Your task to perform on an android device: Search for the new Jordans on Nike.com Image 0: 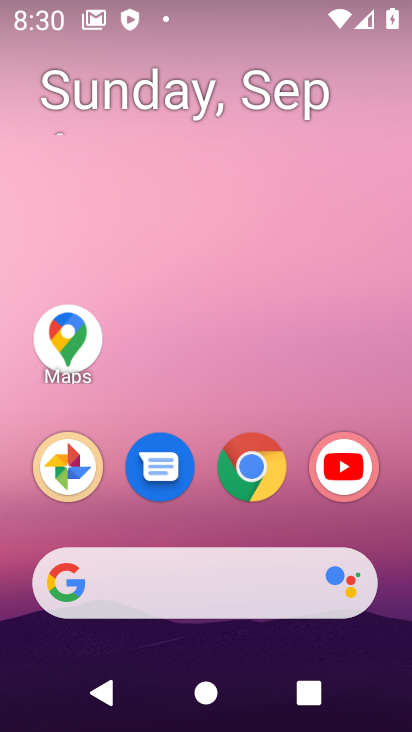
Step 0: click (301, 452)
Your task to perform on an android device: Search for the new Jordans on Nike.com Image 1: 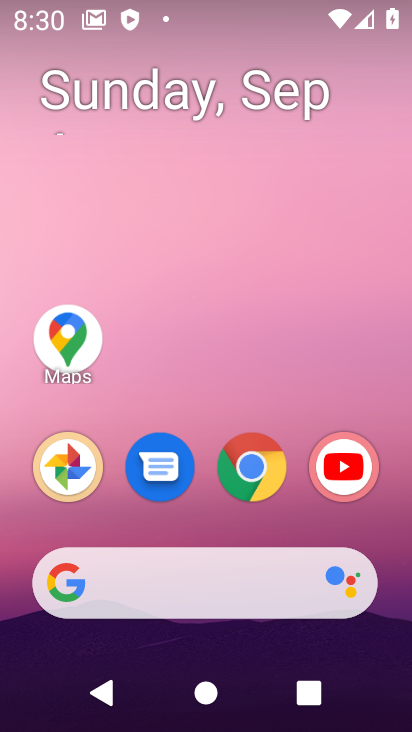
Step 1: click (246, 451)
Your task to perform on an android device: Search for the new Jordans on Nike.com Image 2: 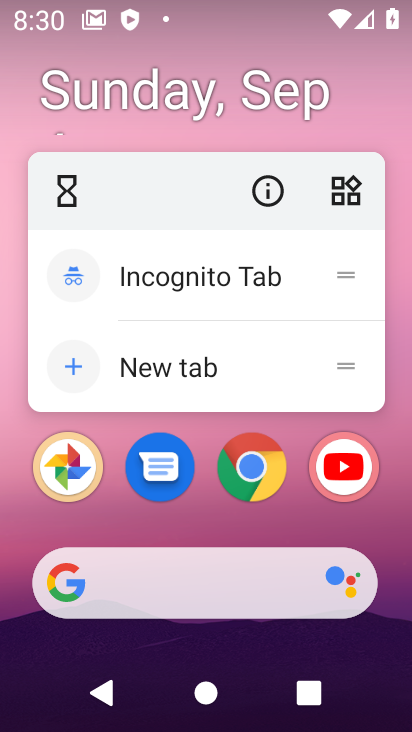
Step 2: click (258, 477)
Your task to perform on an android device: Search for the new Jordans on Nike.com Image 3: 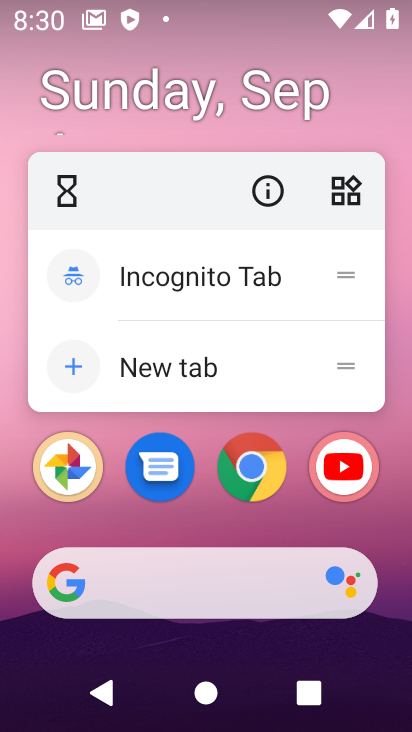
Step 3: click (262, 457)
Your task to perform on an android device: Search for the new Jordans on Nike.com Image 4: 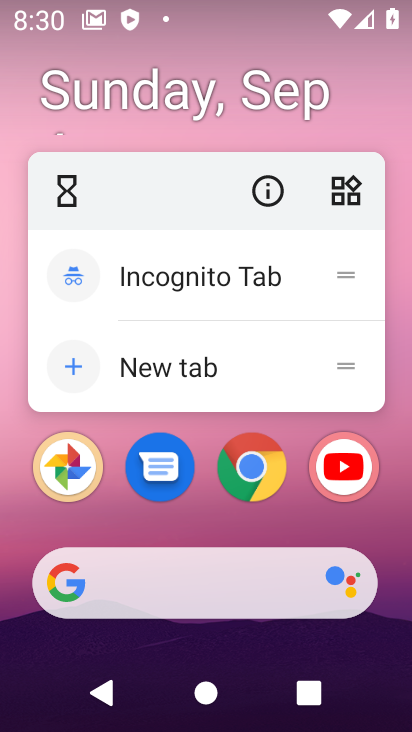
Step 4: click (259, 457)
Your task to perform on an android device: Search for the new Jordans on Nike.com Image 5: 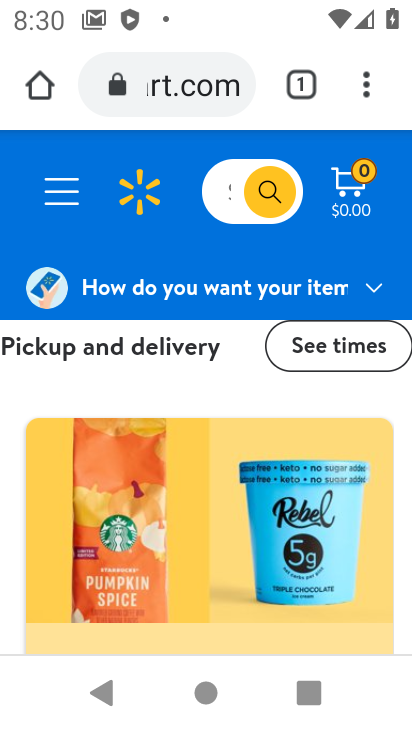
Step 5: click (227, 79)
Your task to perform on an android device: Search for the new Jordans on Nike.com Image 6: 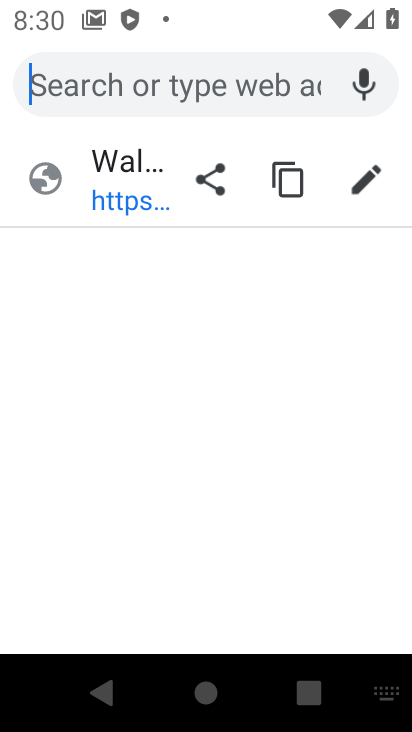
Step 6: type "nike.com"
Your task to perform on an android device: Search for the new Jordans on Nike.com Image 7: 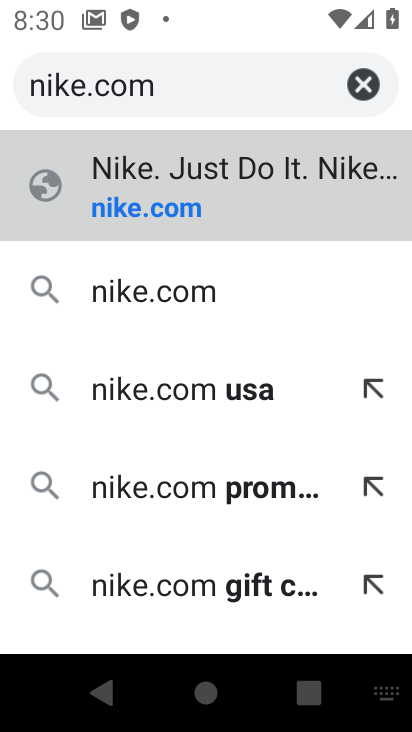
Step 7: click (134, 191)
Your task to perform on an android device: Search for the new Jordans on Nike.com Image 8: 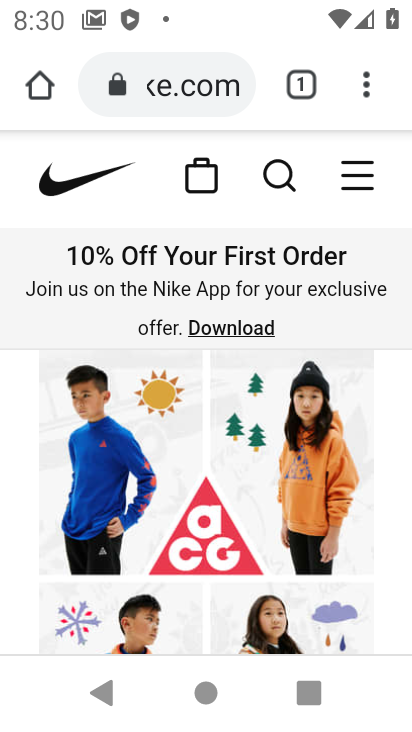
Step 8: click (278, 177)
Your task to perform on an android device: Search for the new Jordans on Nike.com Image 9: 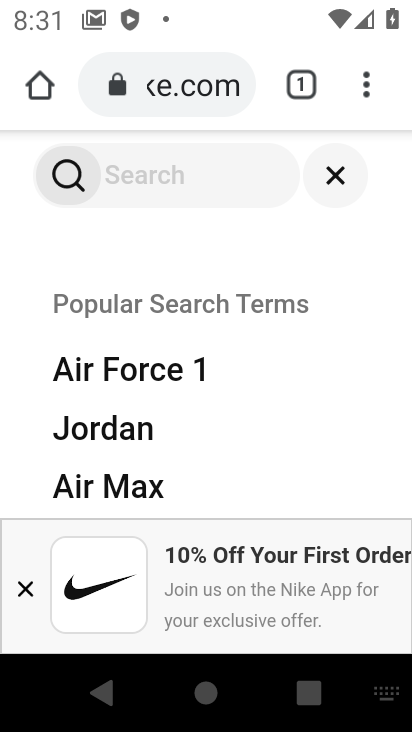
Step 9: type "new jordans "
Your task to perform on an android device: Search for the new Jordans on Nike.com Image 10: 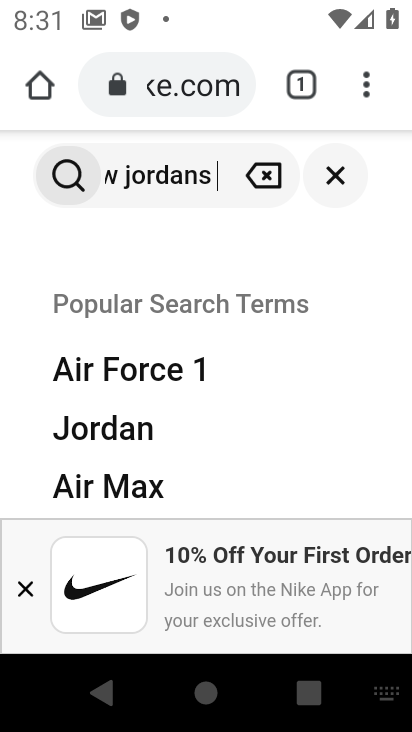
Step 10: type ""
Your task to perform on an android device: Search for the new Jordans on Nike.com Image 11: 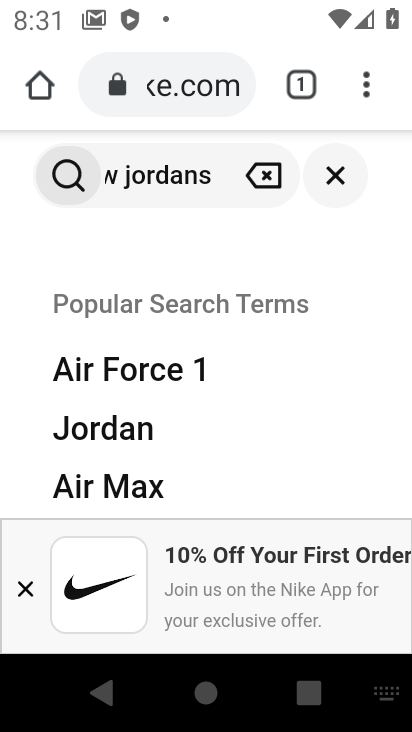
Step 11: click (128, 423)
Your task to perform on an android device: Search for the new Jordans on Nike.com Image 12: 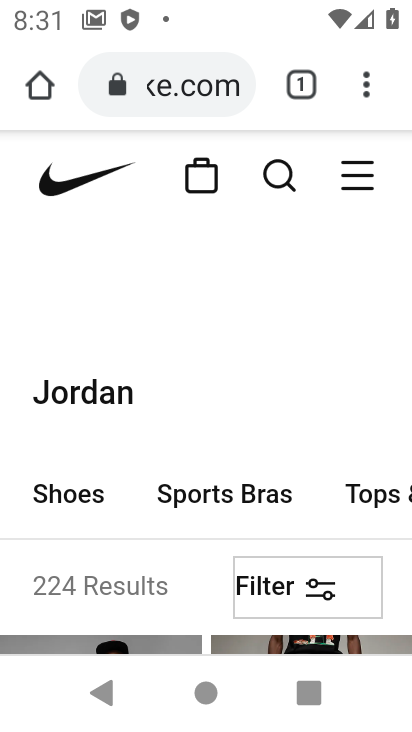
Step 12: drag from (358, 343) to (372, 297)
Your task to perform on an android device: Search for the new Jordans on Nike.com Image 13: 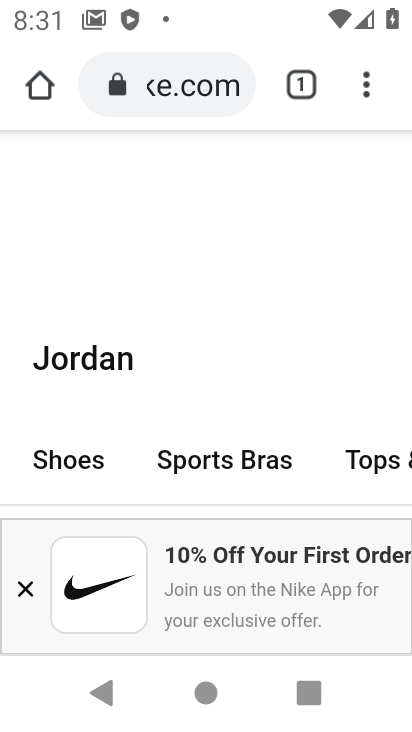
Step 13: click (26, 584)
Your task to perform on an android device: Search for the new Jordans on Nike.com Image 14: 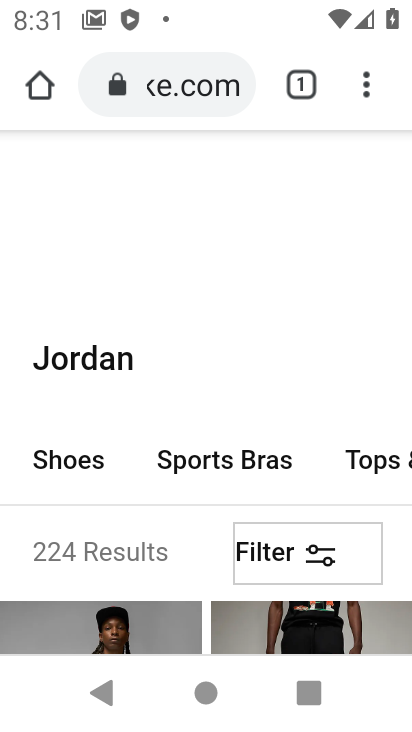
Step 14: drag from (389, 546) to (386, 143)
Your task to perform on an android device: Search for the new Jordans on Nike.com Image 15: 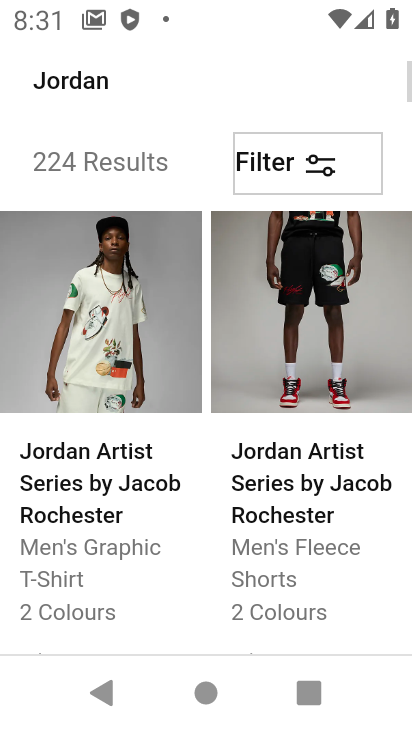
Step 15: drag from (374, 497) to (383, 203)
Your task to perform on an android device: Search for the new Jordans on Nike.com Image 16: 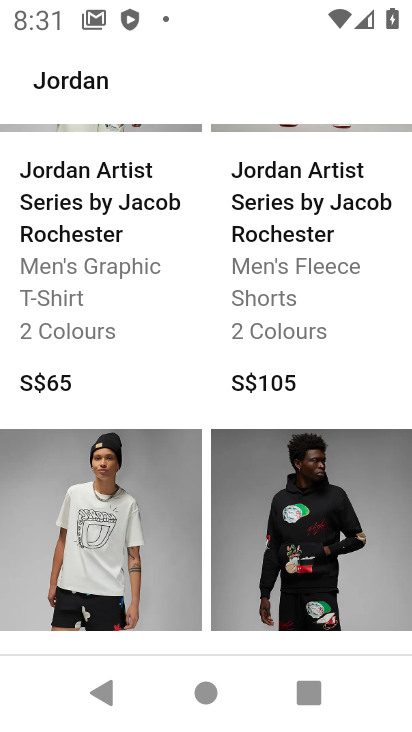
Step 16: drag from (355, 548) to (322, 302)
Your task to perform on an android device: Search for the new Jordans on Nike.com Image 17: 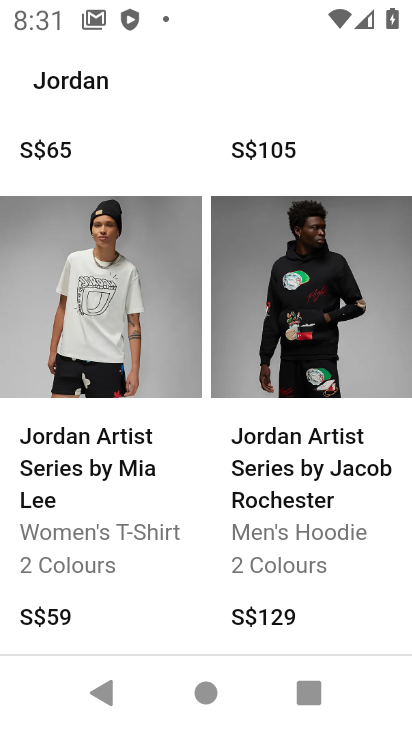
Step 17: drag from (276, 584) to (254, 385)
Your task to perform on an android device: Search for the new Jordans on Nike.com Image 18: 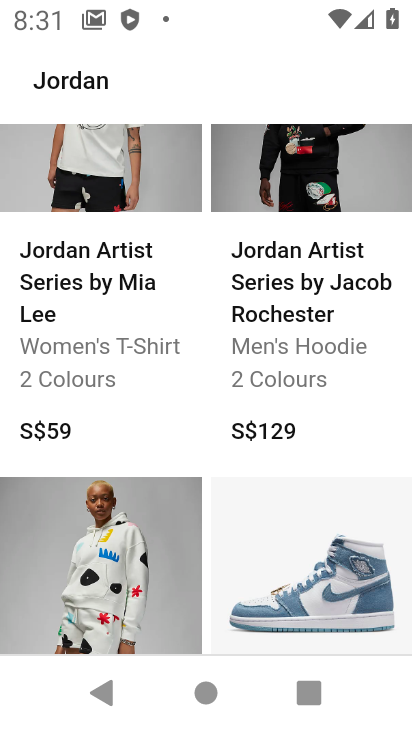
Step 18: drag from (396, 427) to (389, 226)
Your task to perform on an android device: Search for the new Jordans on Nike.com Image 19: 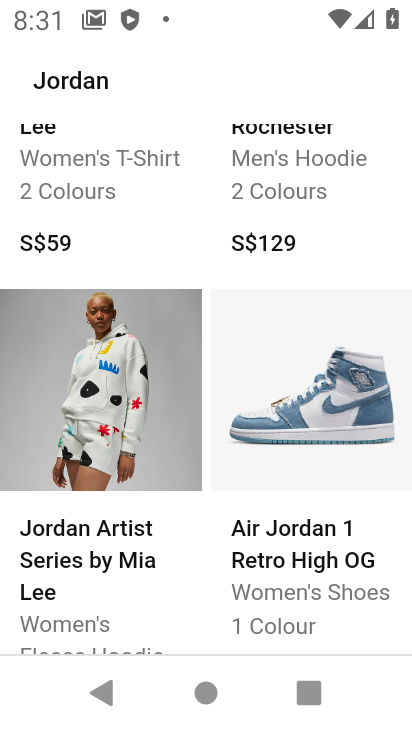
Step 19: drag from (357, 298) to (341, 102)
Your task to perform on an android device: Search for the new Jordans on Nike.com Image 20: 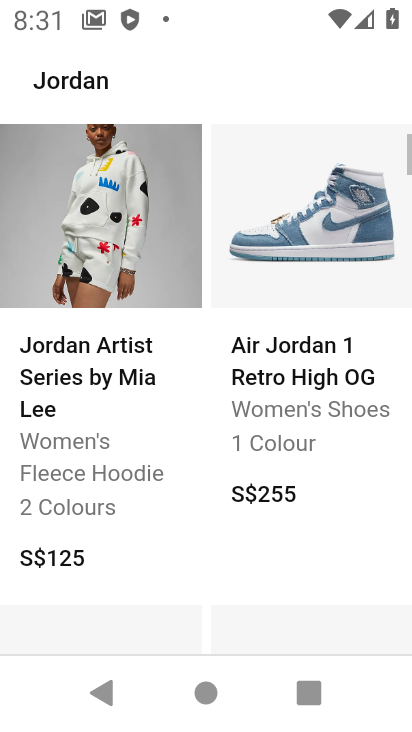
Step 20: click (356, 213)
Your task to perform on an android device: Search for the new Jordans on Nike.com Image 21: 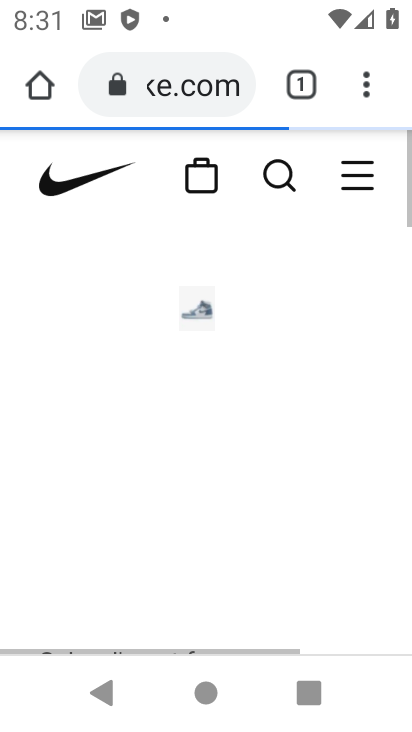
Step 21: drag from (386, 558) to (395, 198)
Your task to perform on an android device: Search for the new Jordans on Nike.com Image 22: 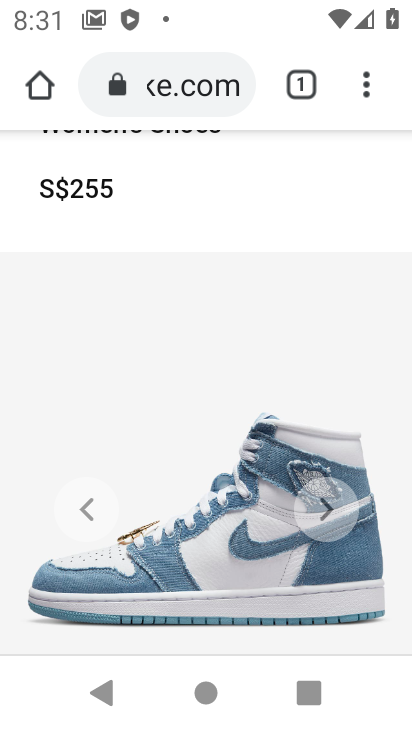
Step 22: drag from (375, 384) to (389, 170)
Your task to perform on an android device: Search for the new Jordans on Nike.com Image 23: 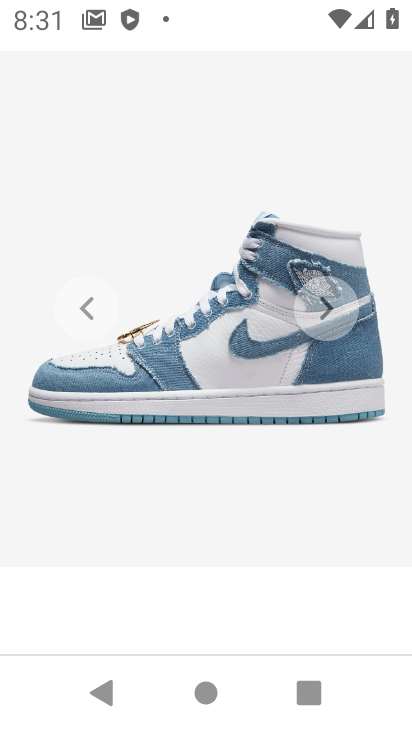
Step 23: drag from (395, 557) to (372, 262)
Your task to perform on an android device: Search for the new Jordans on Nike.com Image 24: 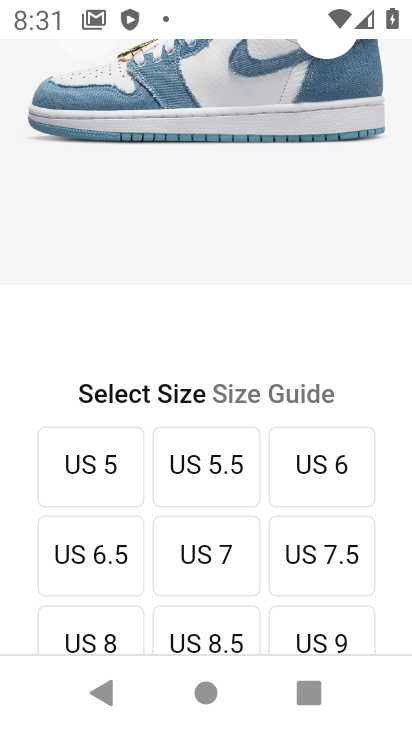
Step 24: drag from (384, 519) to (375, 184)
Your task to perform on an android device: Search for the new Jordans on Nike.com Image 25: 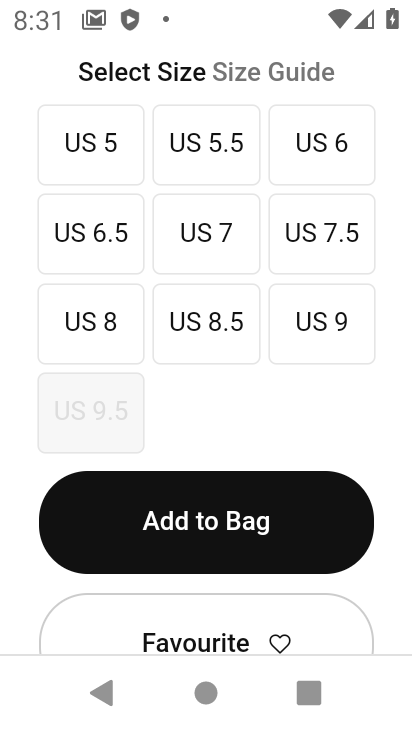
Step 25: drag from (384, 555) to (405, 69)
Your task to perform on an android device: Search for the new Jordans on Nike.com Image 26: 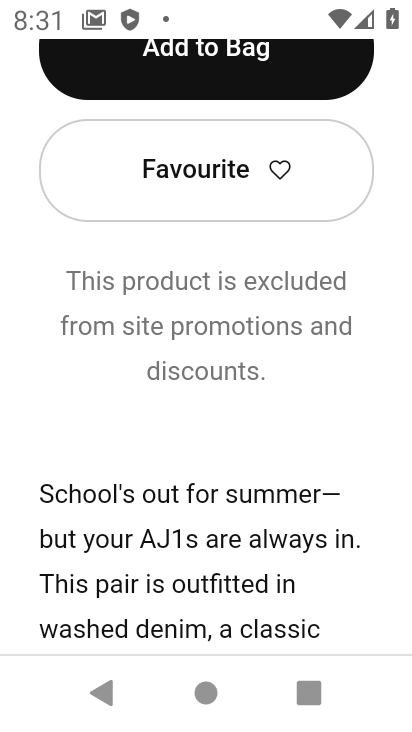
Step 26: drag from (381, 297) to (371, 66)
Your task to perform on an android device: Search for the new Jordans on Nike.com Image 27: 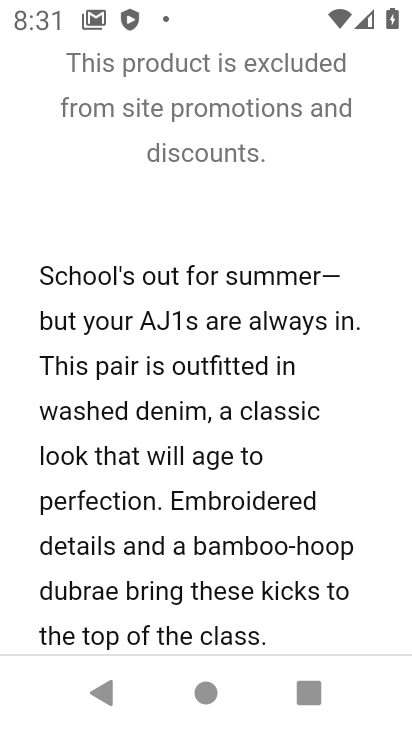
Step 27: drag from (363, 607) to (387, 130)
Your task to perform on an android device: Search for the new Jordans on Nike.com Image 28: 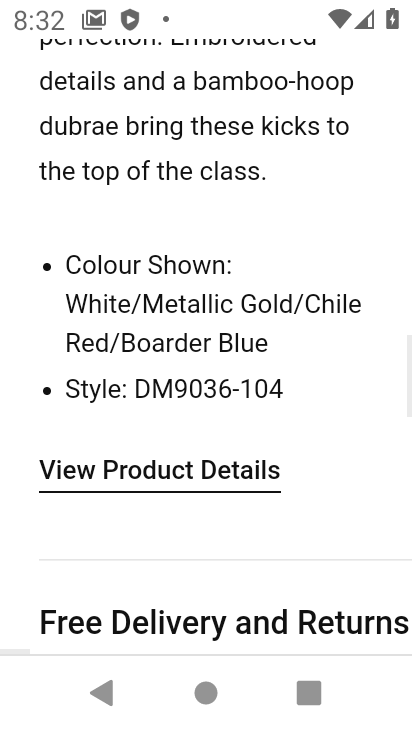
Step 28: drag from (373, 551) to (384, 66)
Your task to perform on an android device: Search for the new Jordans on Nike.com Image 29: 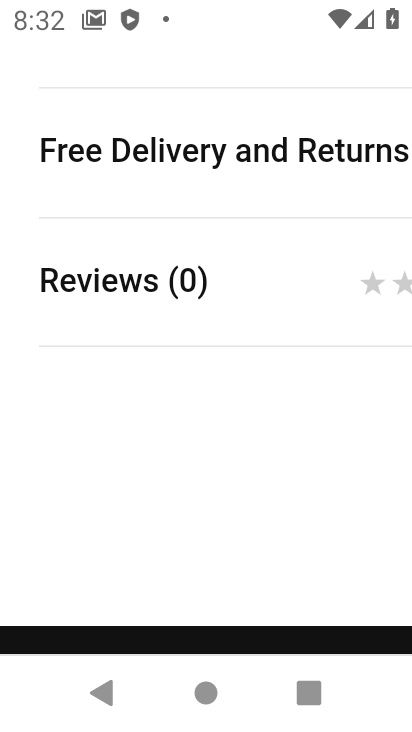
Step 29: drag from (355, 627) to (378, 206)
Your task to perform on an android device: Search for the new Jordans on Nike.com Image 30: 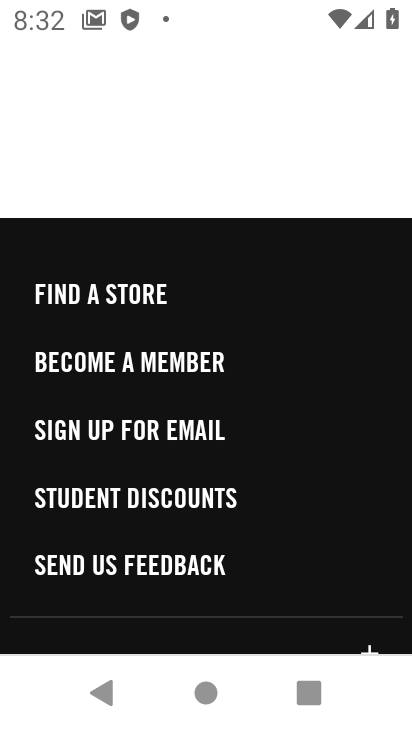
Step 30: drag from (321, 124) to (329, 612)
Your task to perform on an android device: Search for the new Jordans on Nike.com Image 31: 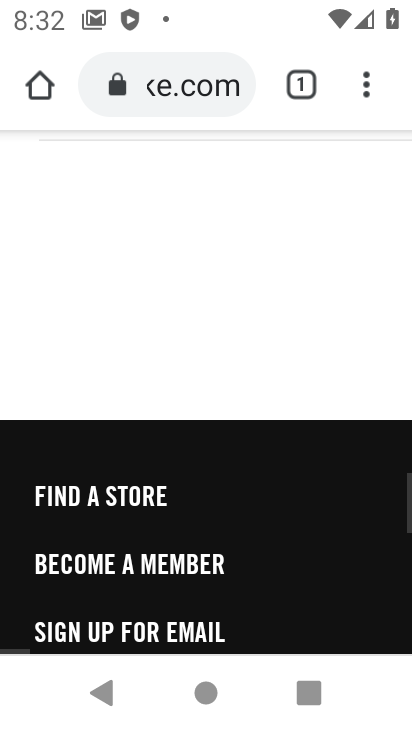
Step 31: drag from (326, 237) to (362, 668)
Your task to perform on an android device: Search for the new Jordans on Nike.com Image 32: 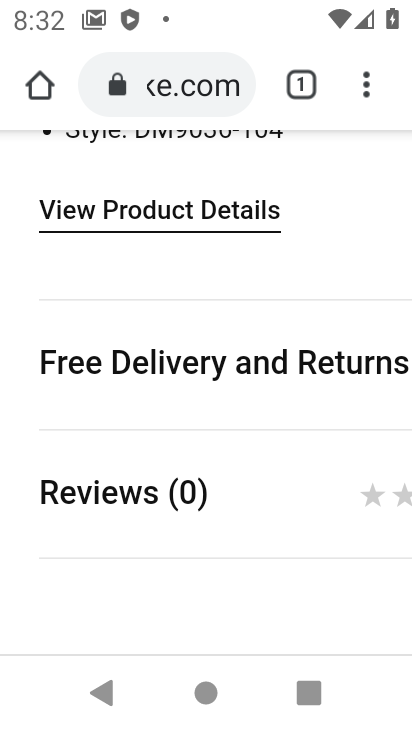
Step 32: drag from (353, 208) to (208, 710)
Your task to perform on an android device: Search for the new Jordans on Nike.com Image 33: 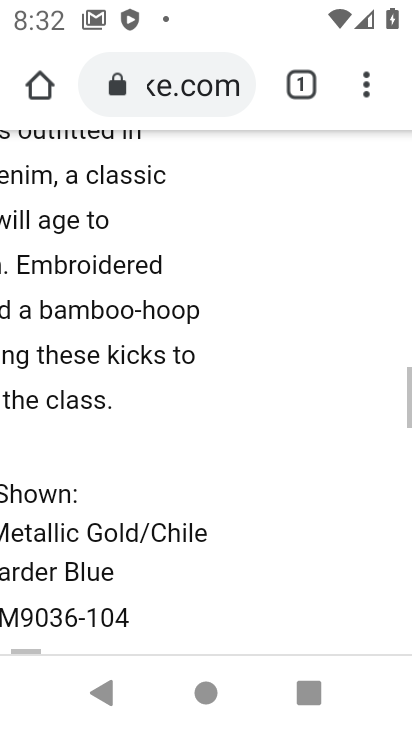
Step 33: drag from (375, 213) to (363, 578)
Your task to perform on an android device: Search for the new Jordans on Nike.com Image 34: 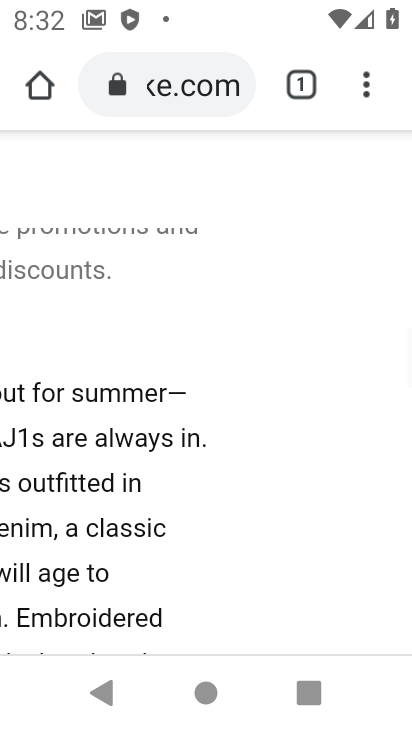
Step 34: drag from (318, 311) to (323, 628)
Your task to perform on an android device: Search for the new Jordans on Nike.com Image 35: 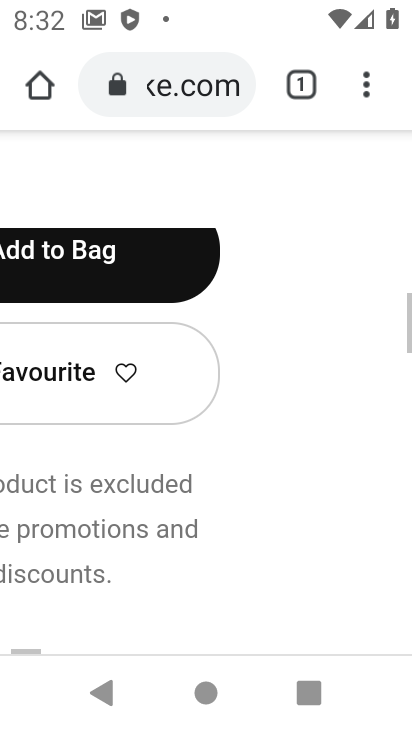
Step 35: drag from (333, 310) to (335, 665)
Your task to perform on an android device: Search for the new Jordans on Nike.com Image 36: 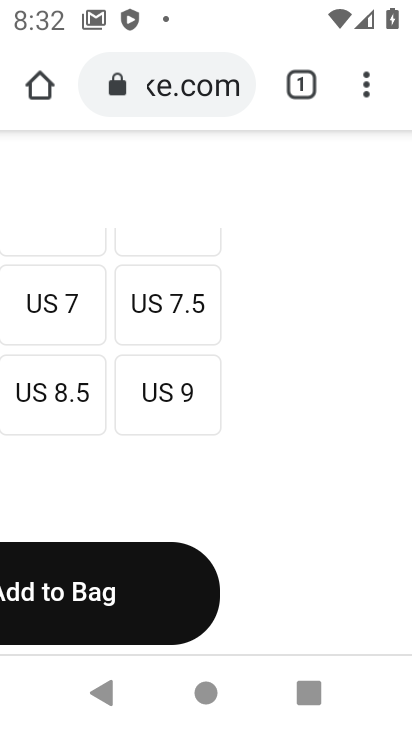
Step 36: drag from (324, 335) to (332, 617)
Your task to perform on an android device: Search for the new Jordans on Nike.com Image 37: 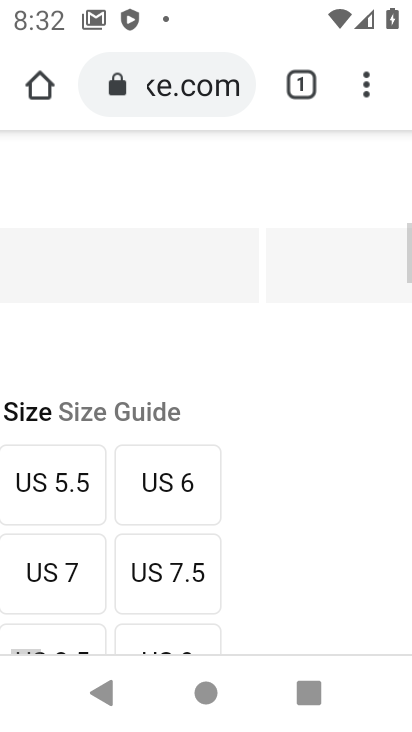
Step 37: drag from (327, 347) to (346, 648)
Your task to perform on an android device: Search for the new Jordans on Nike.com Image 38: 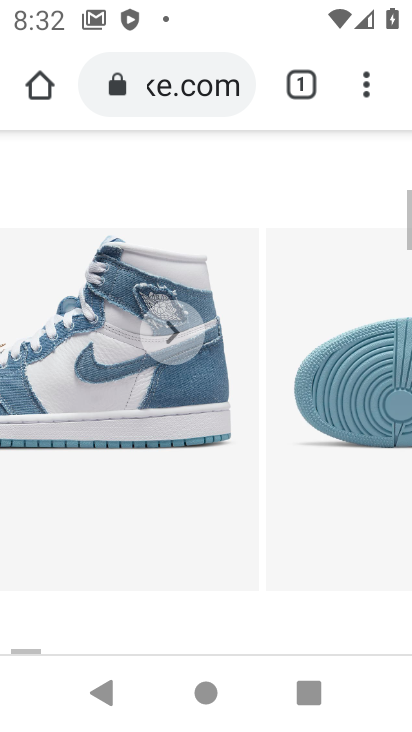
Step 38: drag from (303, 258) to (297, 629)
Your task to perform on an android device: Search for the new Jordans on Nike.com Image 39: 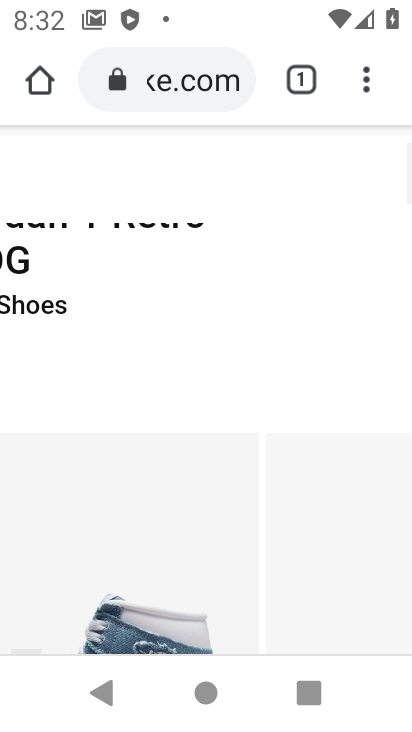
Step 39: drag from (266, 377) to (278, 678)
Your task to perform on an android device: Search for the new Jordans on Nike.com Image 40: 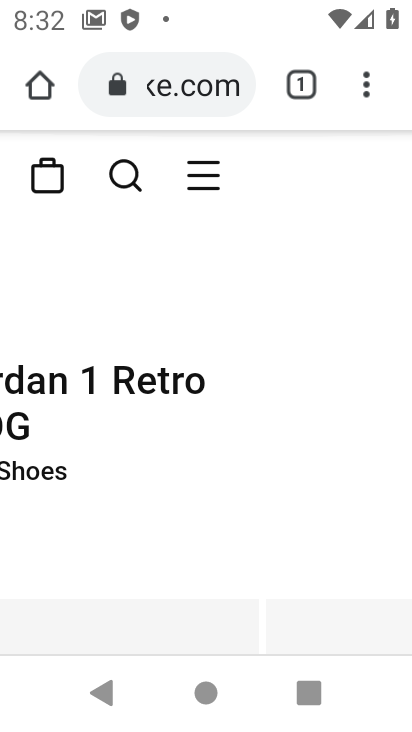
Step 40: drag from (216, 396) to (190, 713)
Your task to perform on an android device: Search for the new Jordans on Nike.com Image 41: 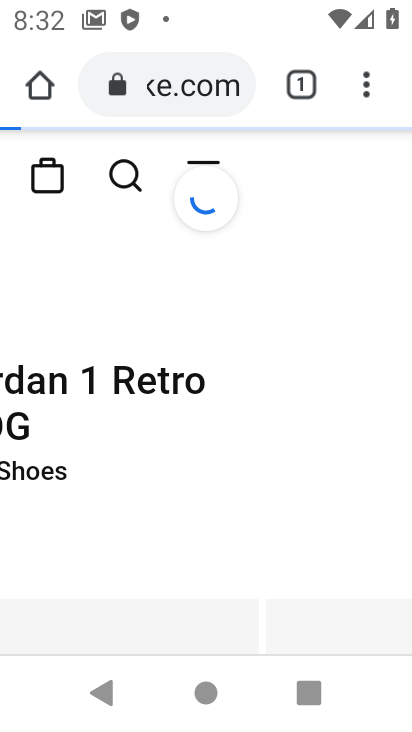
Step 41: drag from (141, 443) to (150, 584)
Your task to perform on an android device: Search for the new Jordans on Nike.com Image 42: 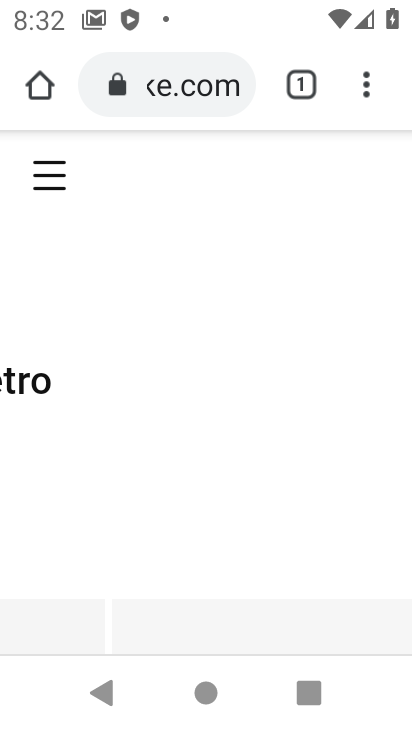
Step 42: drag from (235, 263) to (244, 559)
Your task to perform on an android device: Search for the new Jordans on Nike.com Image 43: 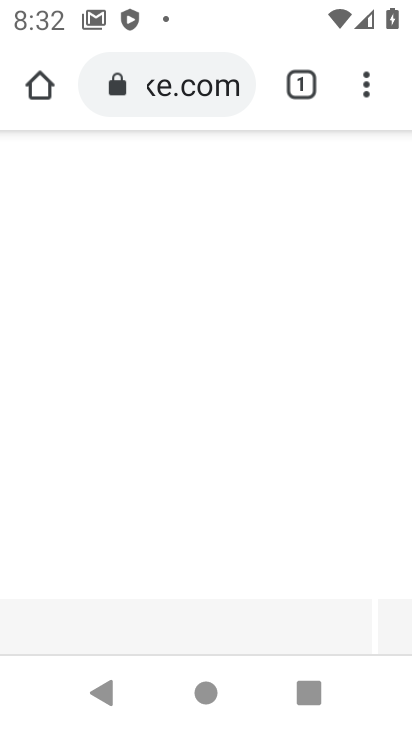
Step 43: drag from (315, 523) to (343, 256)
Your task to perform on an android device: Search for the new Jordans on Nike.com Image 44: 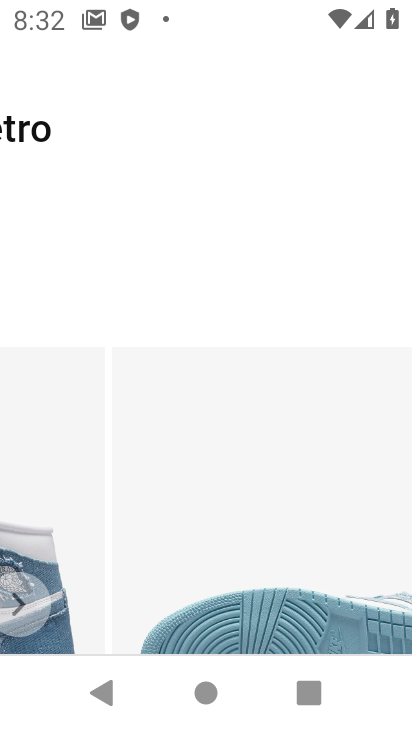
Step 44: click (286, 274)
Your task to perform on an android device: Search for the new Jordans on Nike.com Image 45: 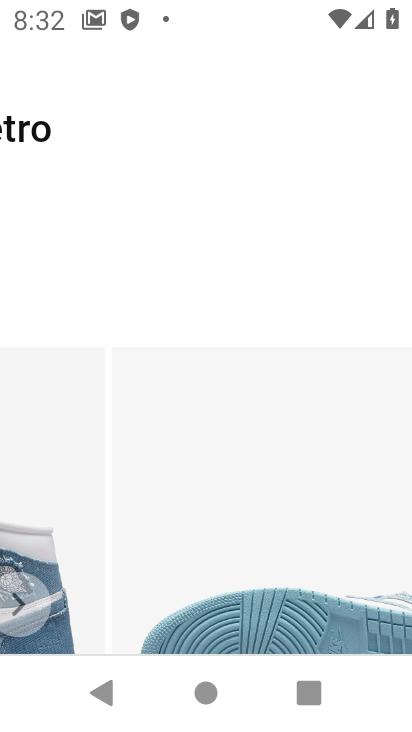
Step 45: drag from (293, 502) to (307, 341)
Your task to perform on an android device: Search for the new Jordans on Nike.com Image 46: 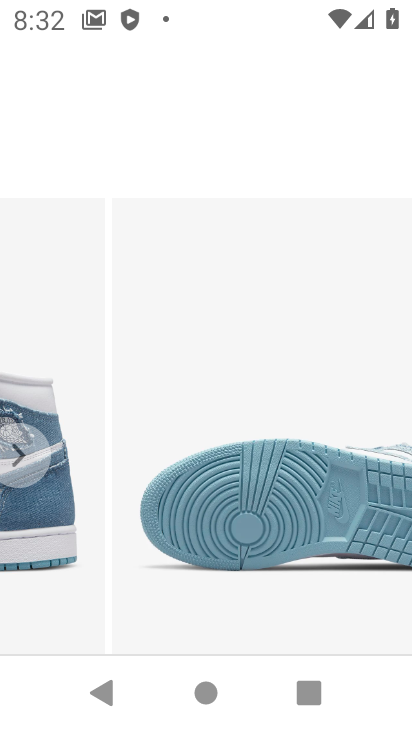
Step 46: click (240, 522)
Your task to perform on an android device: Search for the new Jordans on Nike.com Image 47: 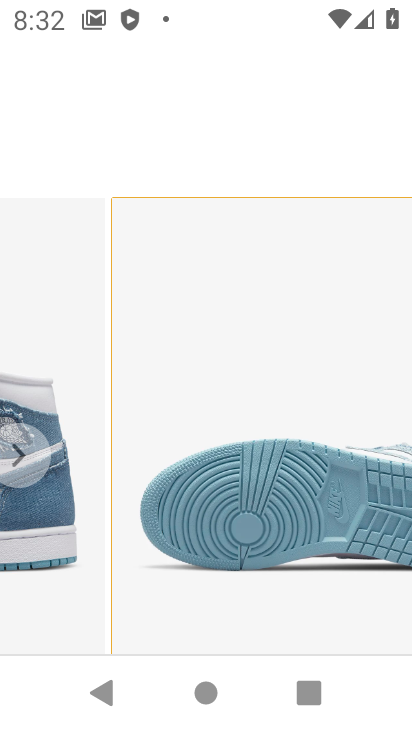
Step 47: task complete